Your task to perform on an android device: Go to settings Image 0: 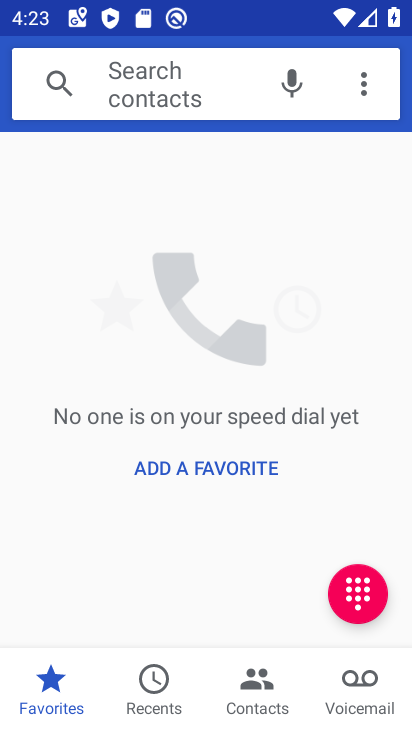
Step 0: press back button
Your task to perform on an android device: Go to settings Image 1: 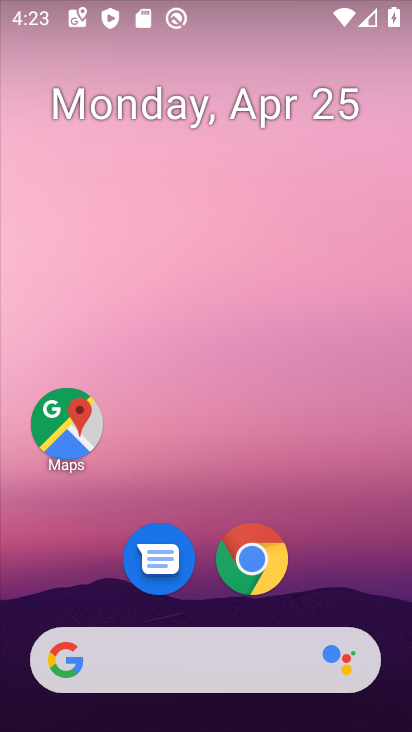
Step 1: drag from (219, 448) to (218, 4)
Your task to perform on an android device: Go to settings Image 2: 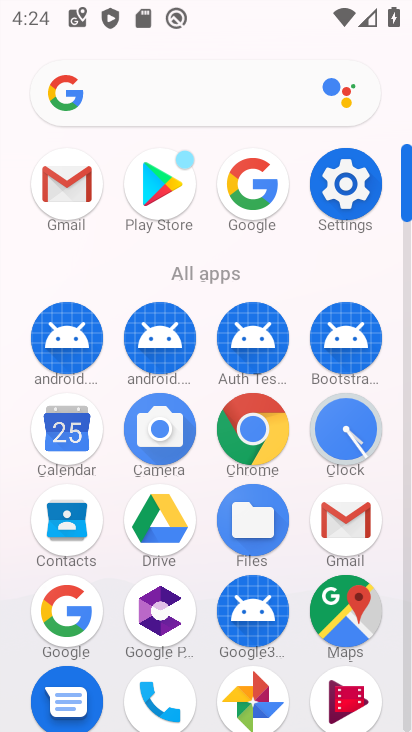
Step 2: click (345, 185)
Your task to perform on an android device: Go to settings Image 3: 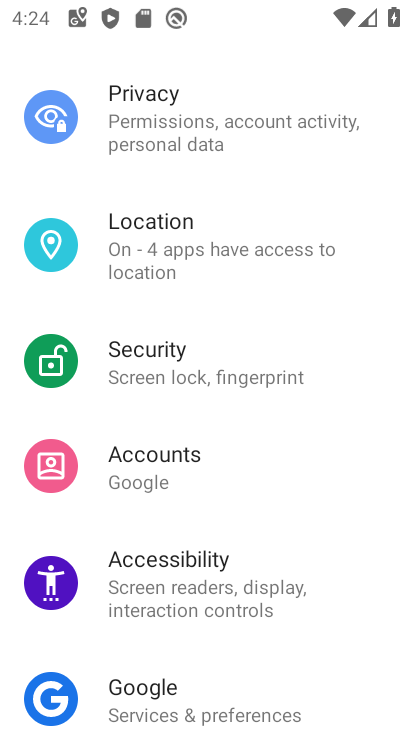
Step 3: task complete